Your task to perform on an android device: turn vacation reply on in the gmail app Image 0: 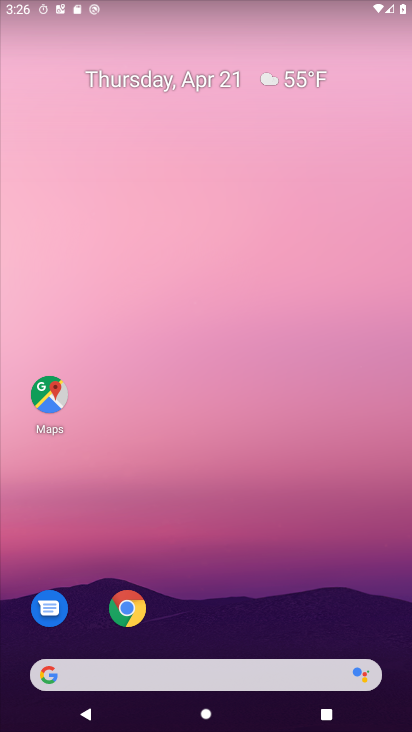
Step 0: drag from (192, 410) to (330, 30)
Your task to perform on an android device: turn vacation reply on in the gmail app Image 1: 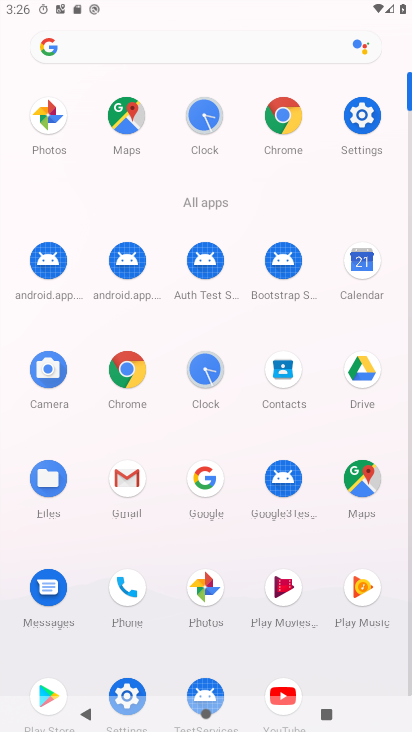
Step 1: click (132, 482)
Your task to perform on an android device: turn vacation reply on in the gmail app Image 2: 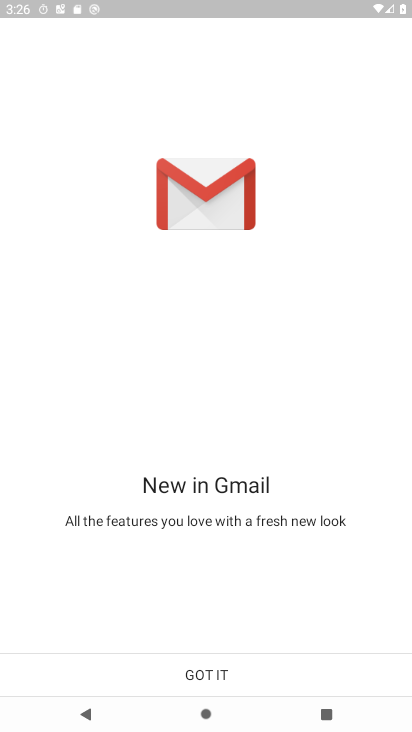
Step 2: click (346, 687)
Your task to perform on an android device: turn vacation reply on in the gmail app Image 3: 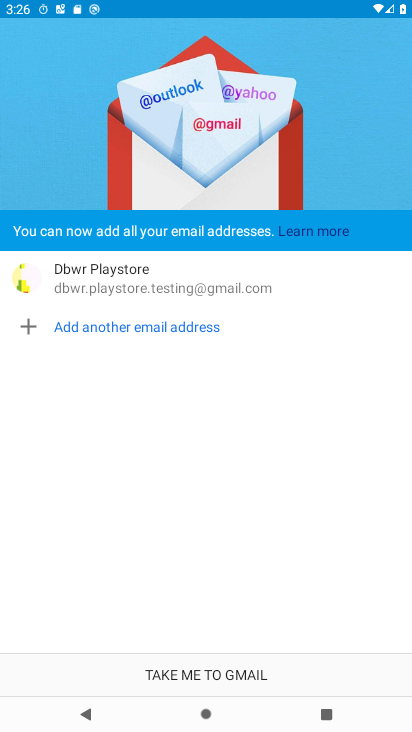
Step 3: click (156, 672)
Your task to perform on an android device: turn vacation reply on in the gmail app Image 4: 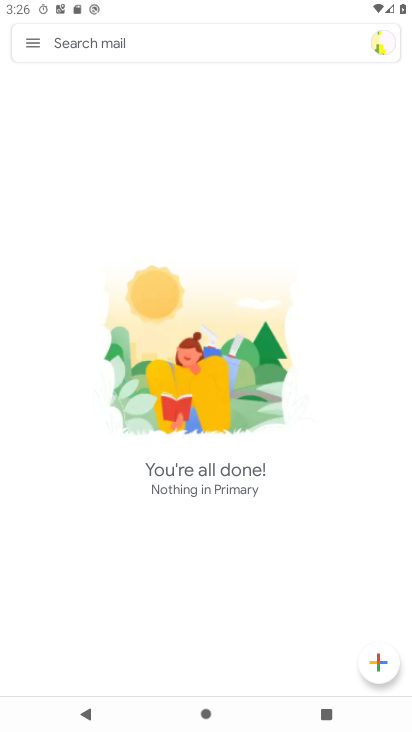
Step 4: click (30, 42)
Your task to perform on an android device: turn vacation reply on in the gmail app Image 5: 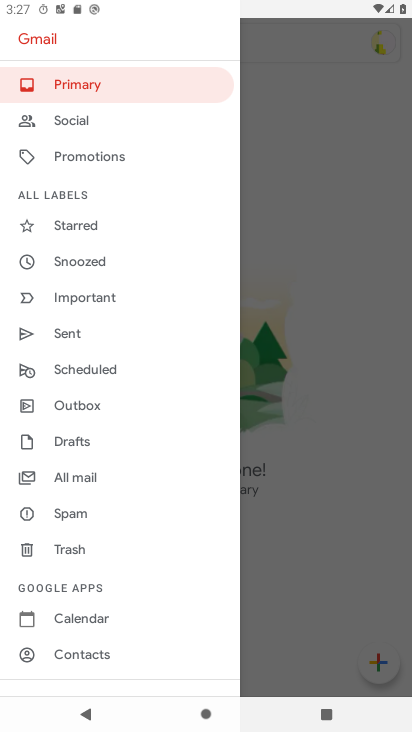
Step 5: drag from (104, 518) to (106, 166)
Your task to perform on an android device: turn vacation reply on in the gmail app Image 6: 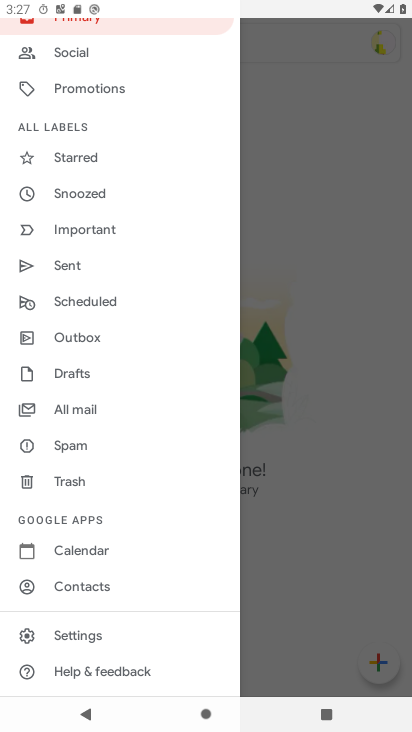
Step 6: click (77, 642)
Your task to perform on an android device: turn vacation reply on in the gmail app Image 7: 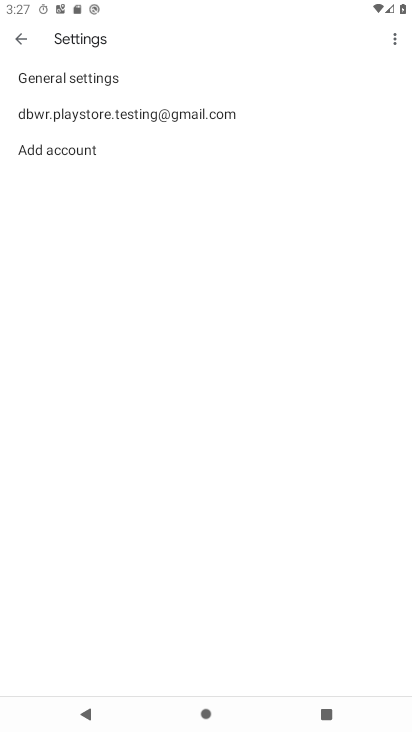
Step 7: click (100, 117)
Your task to perform on an android device: turn vacation reply on in the gmail app Image 8: 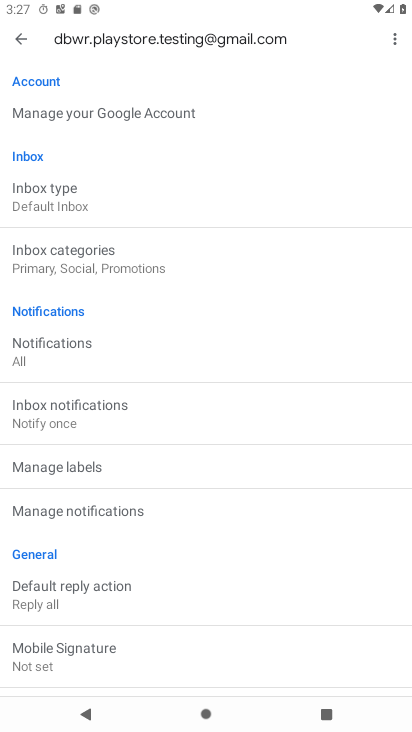
Step 8: drag from (167, 511) to (147, 72)
Your task to perform on an android device: turn vacation reply on in the gmail app Image 9: 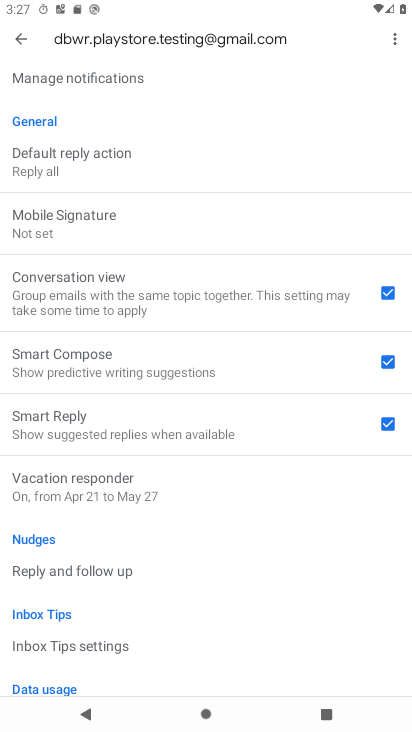
Step 9: click (169, 491)
Your task to perform on an android device: turn vacation reply on in the gmail app Image 10: 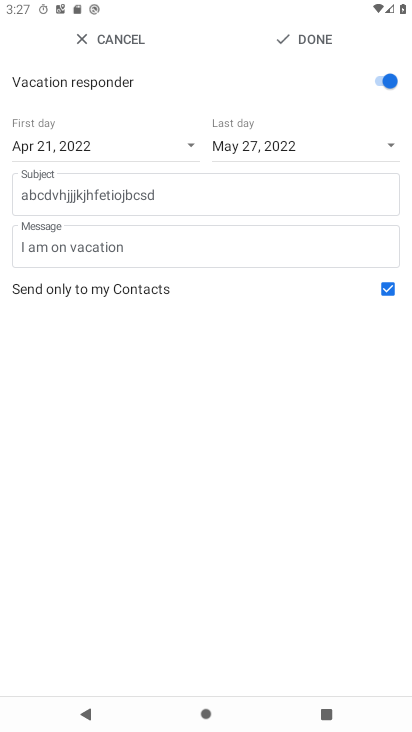
Step 10: click (337, 46)
Your task to perform on an android device: turn vacation reply on in the gmail app Image 11: 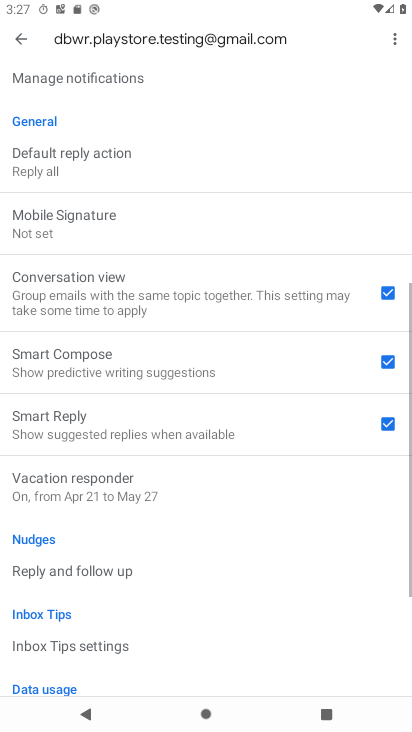
Step 11: task complete